Your task to perform on an android device: Go to Reddit.com Image 0: 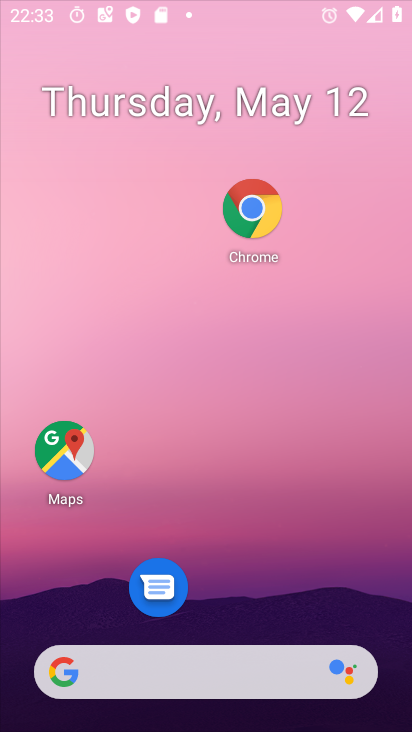
Step 0: drag from (363, 323) to (378, 155)
Your task to perform on an android device: Go to Reddit.com Image 1: 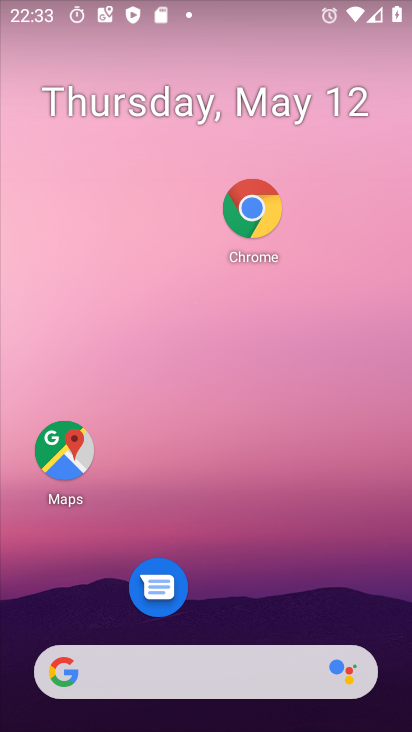
Step 1: drag from (291, 629) to (337, 176)
Your task to perform on an android device: Go to Reddit.com Image 2: 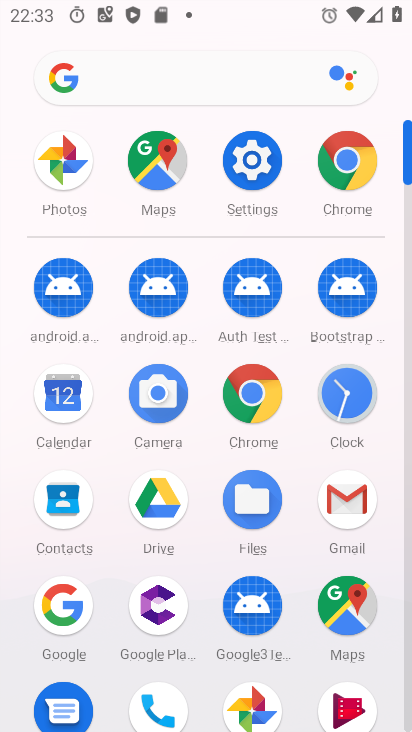
Step 2: click (340, 150)
Your task to perform on an android device: Go to Reddit.com Image 3: 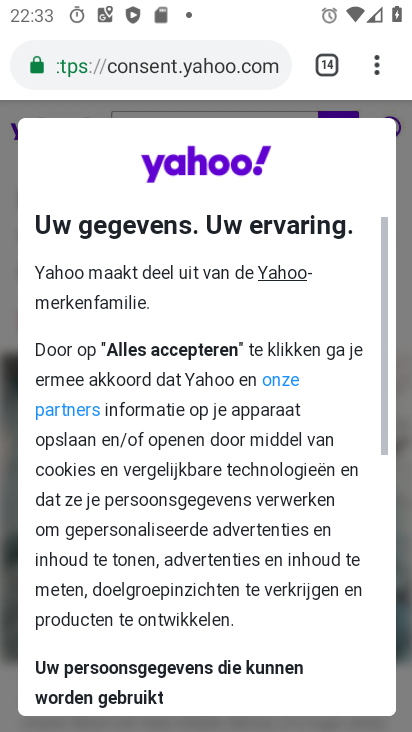
Step 3: click (360, 51)
Your task to perform on an android device: Go to Reddit.com Image 4: 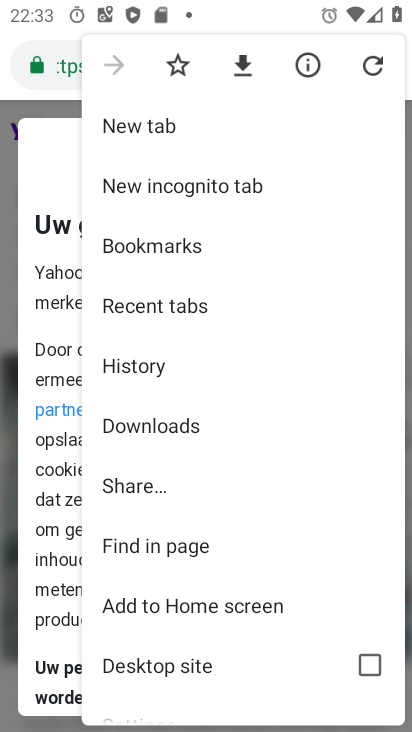
Step 4: click (144, 126)
Your task to perform on an android device: Go to Reddit.com Image 5: 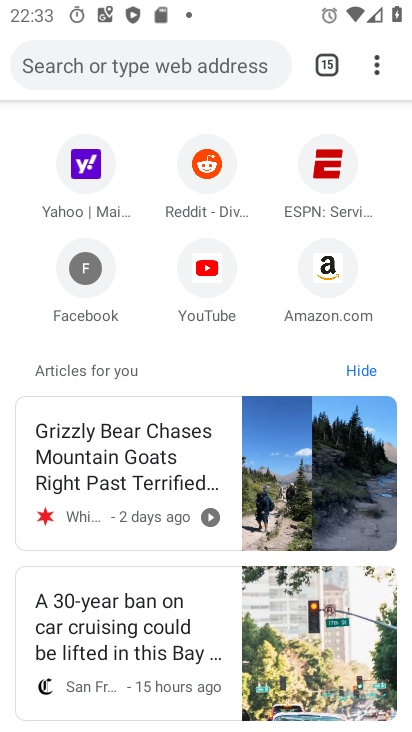
Step 5: click (105, 54)
Your task to perform on an android device: Go to Reddit.com Image 6: 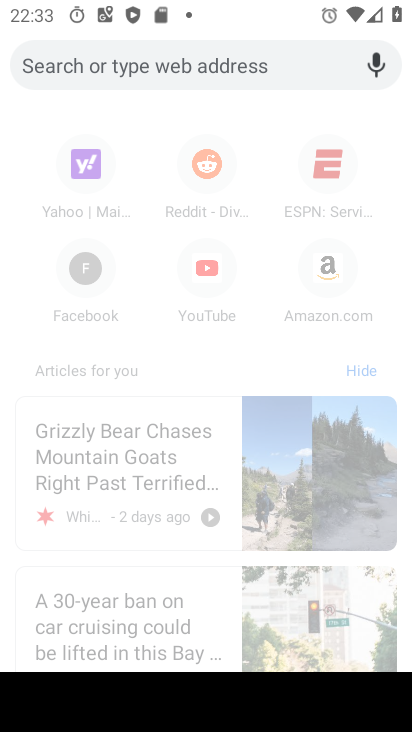
Step 6: type " Reddit.com"
Your task to perform on an android device: Go to Reddit.com Image 7: 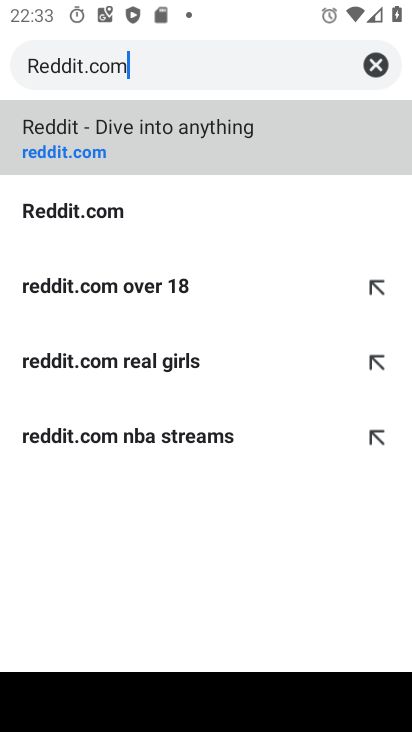
Step 7: click (94, 200)
Your task to perform on an android device: Go to Reddit.com Image 8: 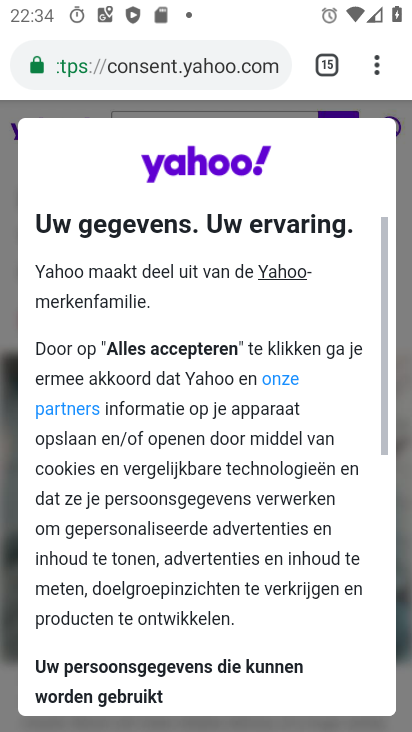
Step 8: click (298, 83)
Your task to perform on an android device: Go to Reddit.com Image 9: 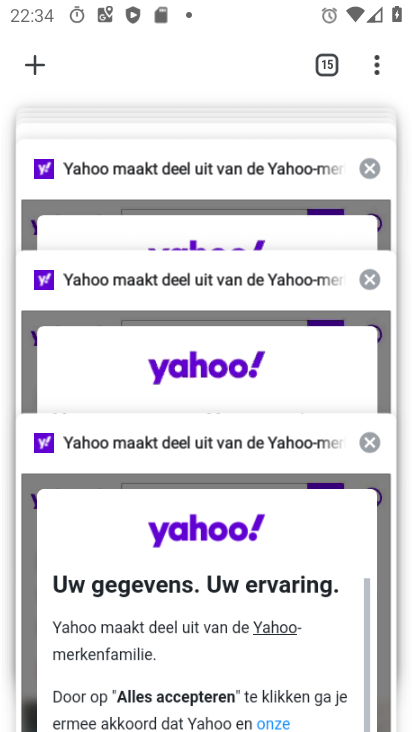
Step 9: drag from (200, 305) to (187, 697)
Your task to perform on an android device: Go to Reddit.com Image 10: 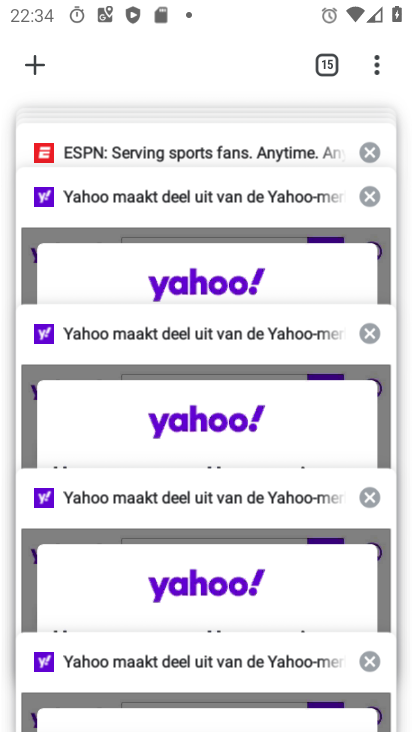
Step 10: drag from (177, 193) to (186, 719)
Your task to perform on an android device: Go to Reddit.com Image 11: 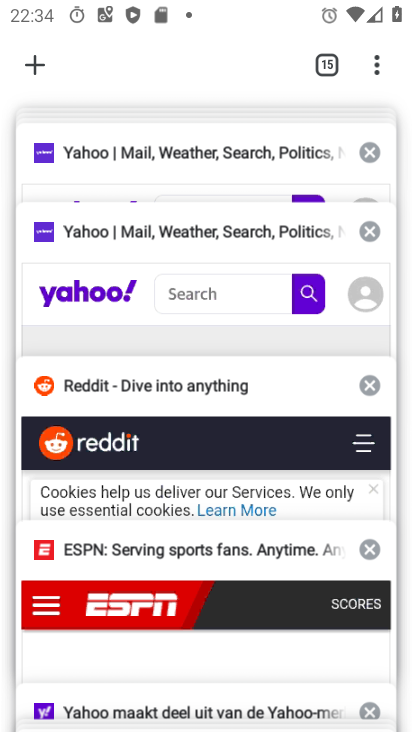
Step 11: click (156, 445)
Your task to perform on an android device: Go to Reddit.com Image 12: 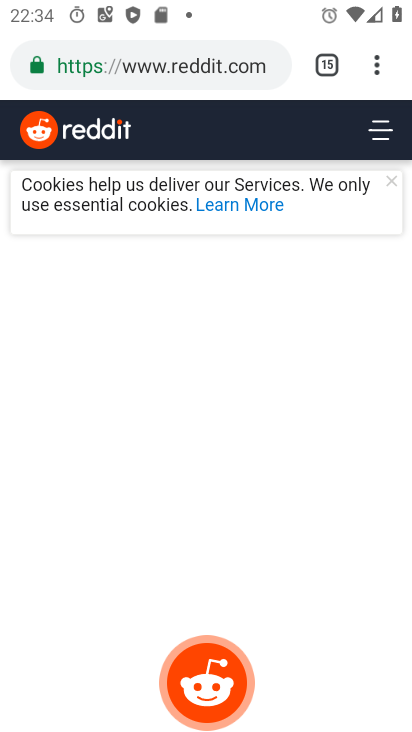
Step 12: task complete